Your task to perform on an android device: Go to ESPN.com Image 0: 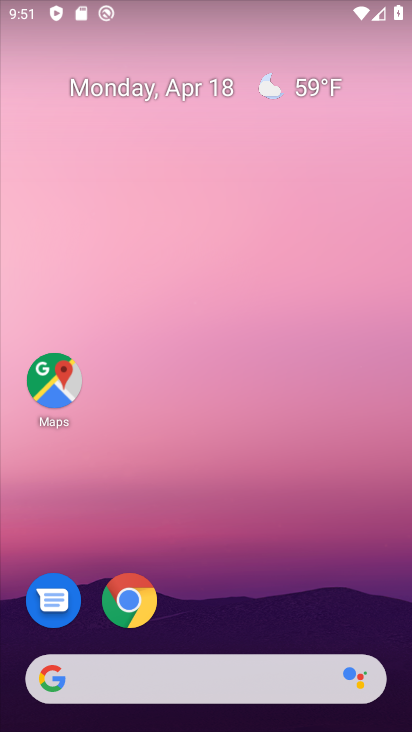
Step 0: click (126, 599)
Your task to perform on an android device: Go to ESPN.com Image 1: 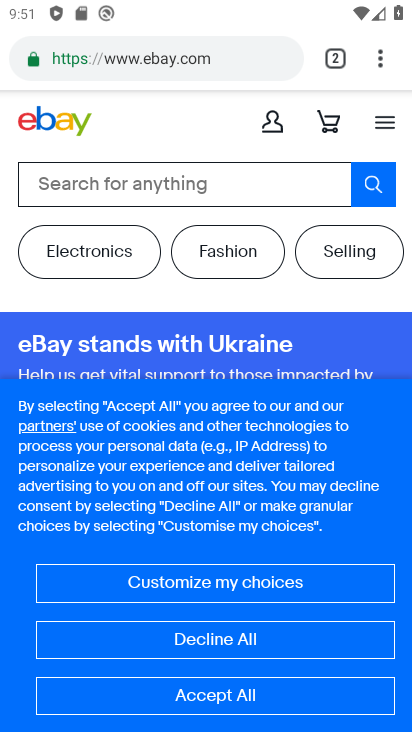
Step 1: click (372, 52)
Your task to perform on an android device: Go to ESPN.com Image 2: 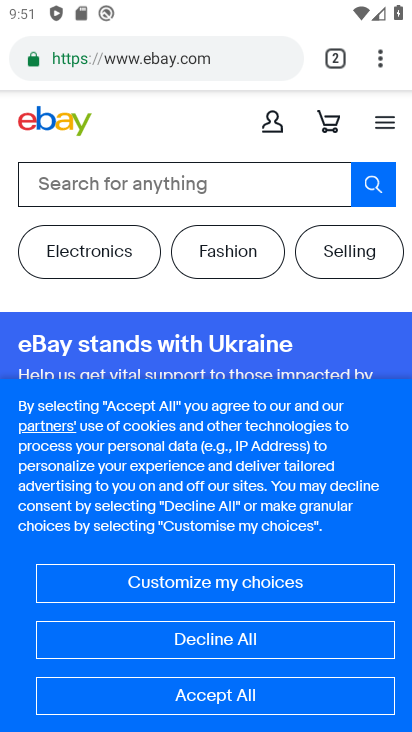
Step 2: click (377, 68)
Your task to perform on an android device: Go to ESPN.com Image 3: 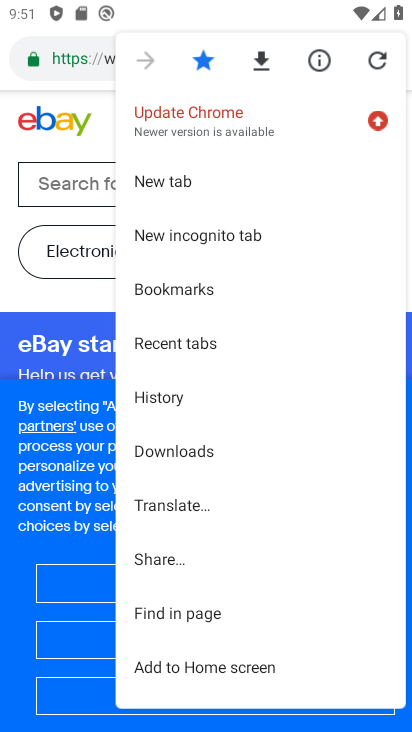
Step 3: click (177, 179)
Your task to perform on an android device: Go to ESPN.com Image 4: 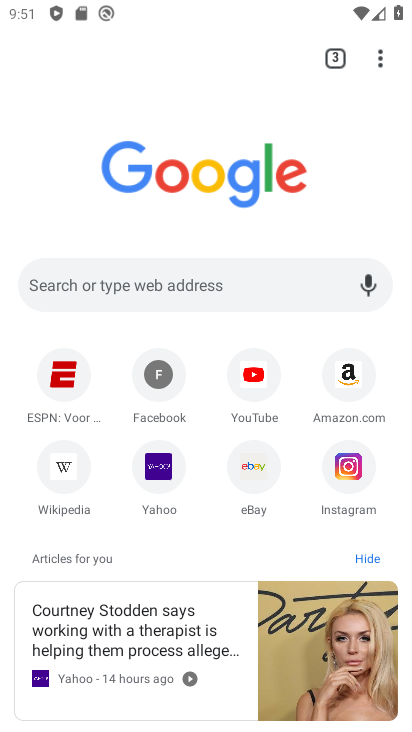
Step 4: click (115, 274)
Your task to perform on an android device: Go to ESPN.com Image 5: 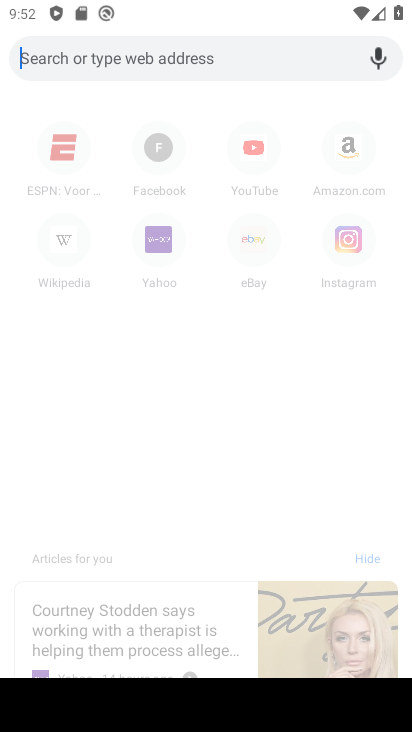
Step 5: type " ESPN.com"
Your task to perform on an android device: Go to ESPN.com Image 6: 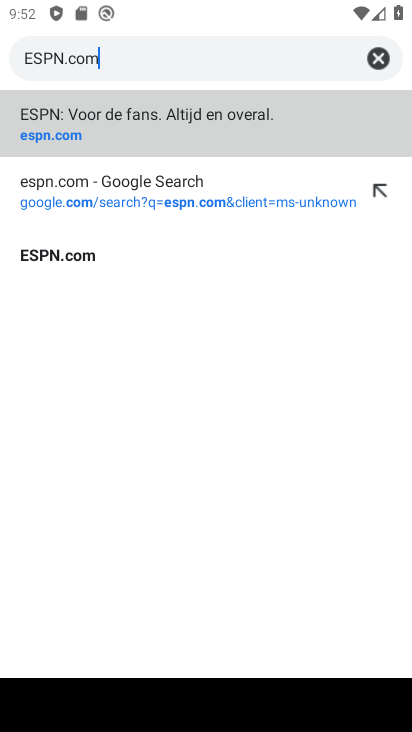
Step 6: type ""
Your task to perform on an android device: Go to ESPN.com Image 7: 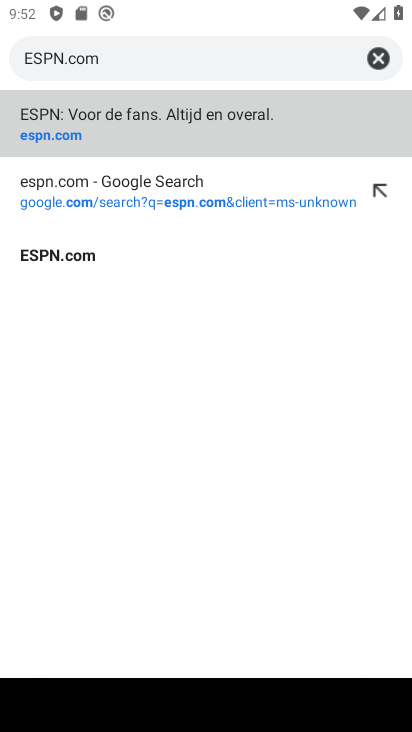
Step 7: click (54, 261)
Your task to perform on an android device: Go to ESPN.com Image 8: 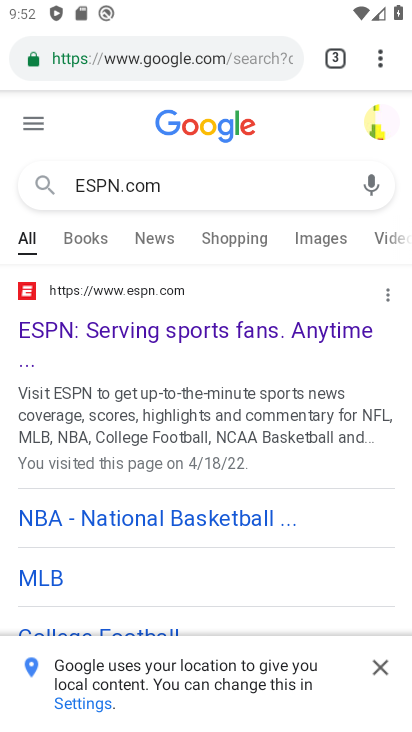
Step 8: task complete